Your task to perform on an android device: Open Chrome and go to the settings page Image 0: 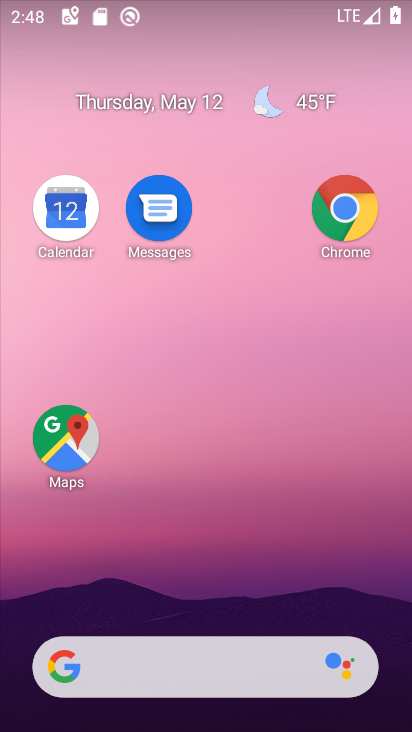
Step 0: click (202, 118)
Your task to perform on an android device: Open Chrome and go to the settings page Image 1: 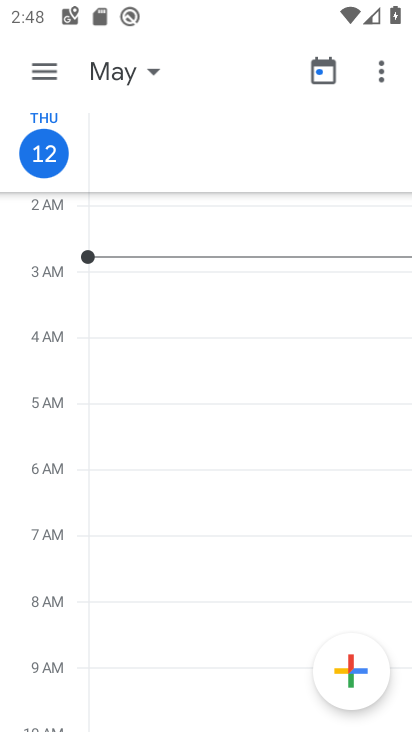
Step 1: press home button
Your task to perform on an android device: Open Chrome and go to the settings page Image 2: 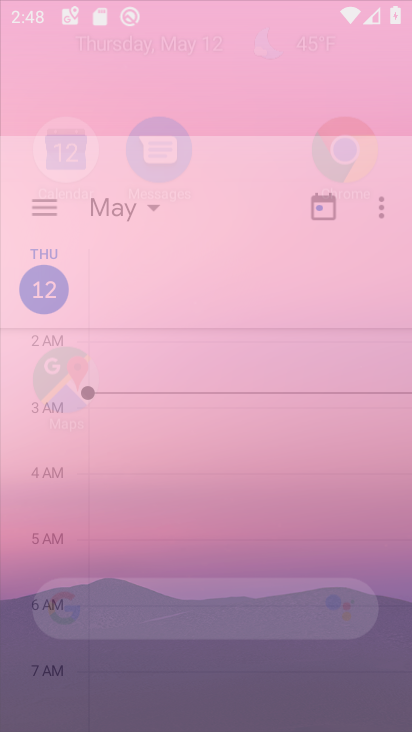
Step 2: drag from (207, 643) to (279, 140)
Your task to perform on an android device: Open Chrome and go to the settings page Image 3: 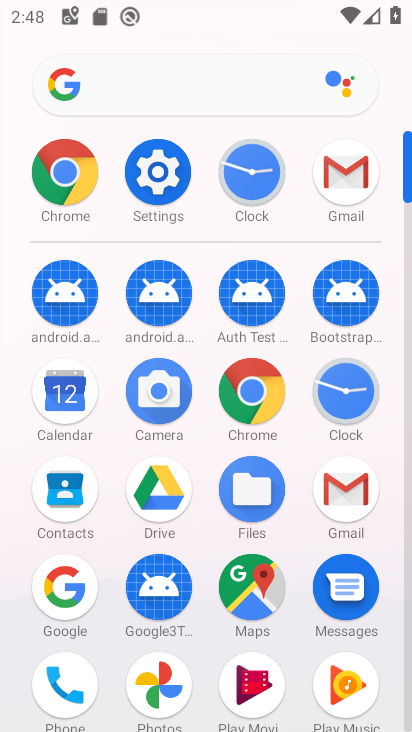
Step 3: click (252, 378)
Your task to perform on an android device: Open Chrome and go to the settings page Image 4: 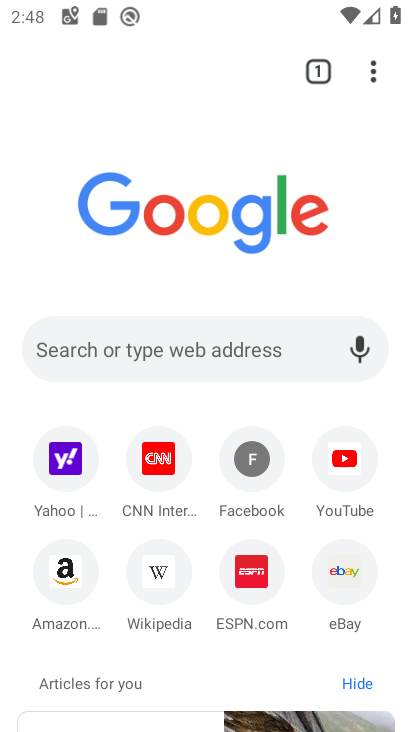
Step 4: task complete